Your task to perform on an android device: visit the assistant section in the google photos Image 0: 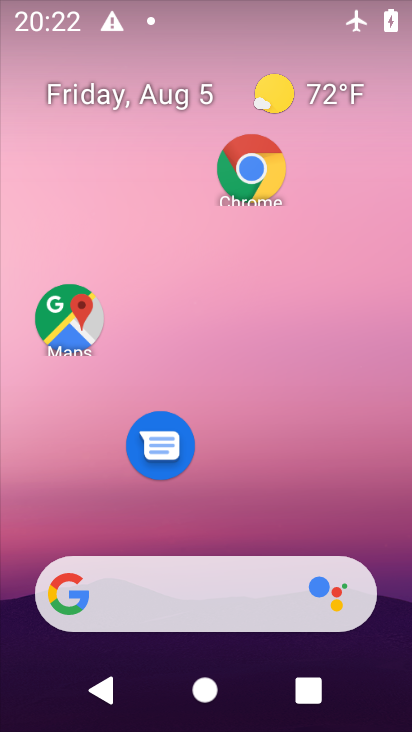
Step 0: drag from (197, 526) to (169, 189)
Your task to perform on an android device: visit the assistant section in the google photos Image 1: 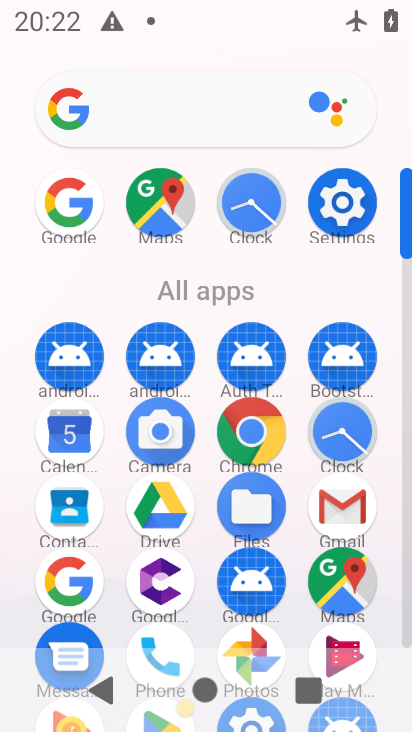
Step 1: drag from (218, 556) to (257, 267)
Your task to perform on an android device: visit the assistant section in the google photos Image 2: 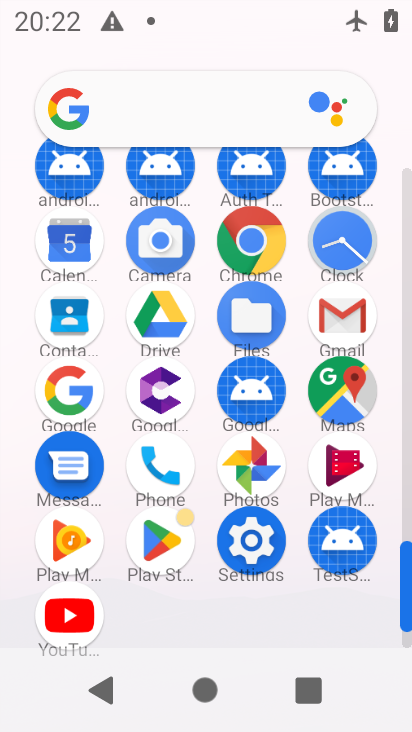
Step 2: click (241, 464)
Your task to perform on an android device: visit the assistant section in the google photos Image 3: 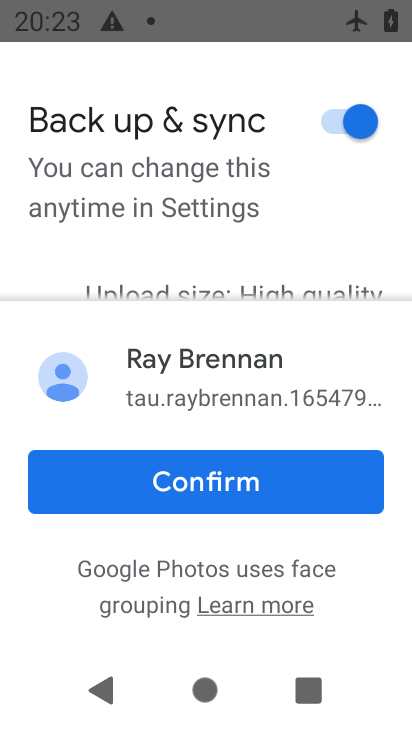
Step 3: click (268, 476)
Your task to perform on an android device: visit the assistant section in the google photos Image 4: 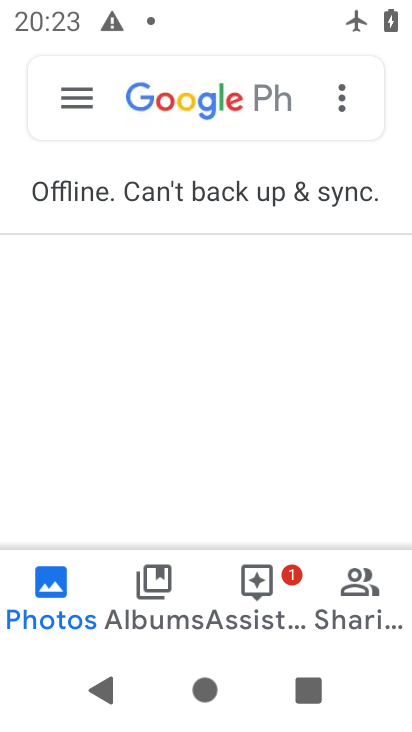
Step 4: click (247, 598)
Your task to perform on an android device: visit the assistant section in the google photos Image 5: 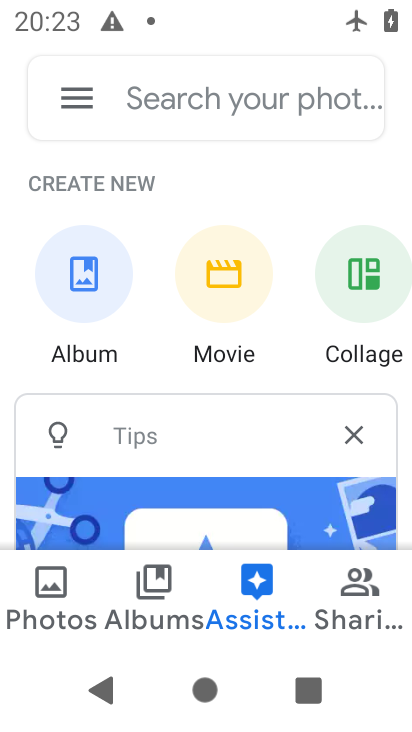
Step 5: task complete